Your task to perform on an android device: Go to Android settings Image 0: 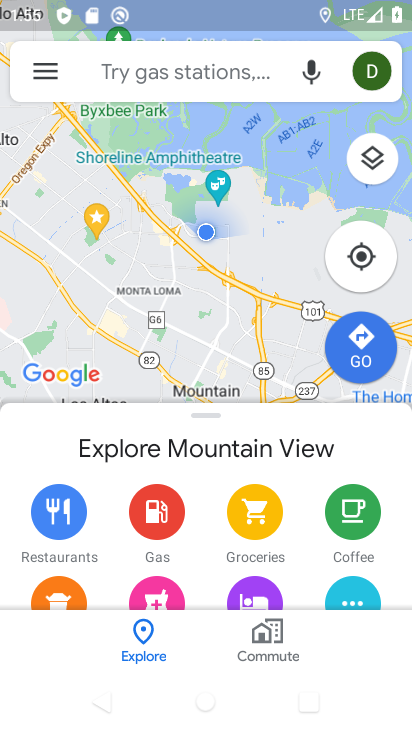
Step 0: press home button
Your task to perform on an android device: Go to Android settings Image 1: 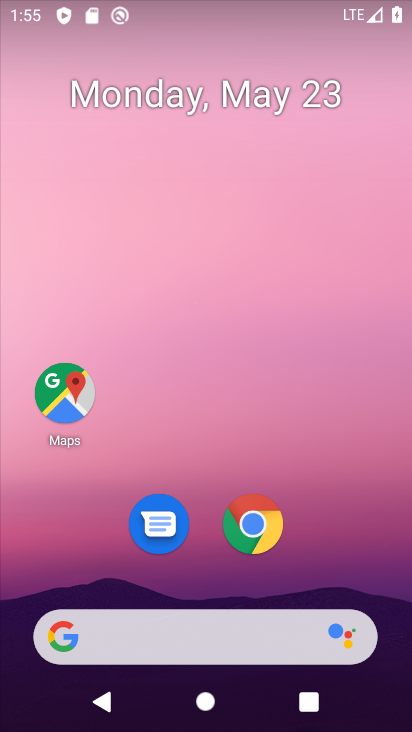
Step 1: drag from (203, 463) to (244, 23)
Your task to perform on an android device: Go to Android settings Image 2: 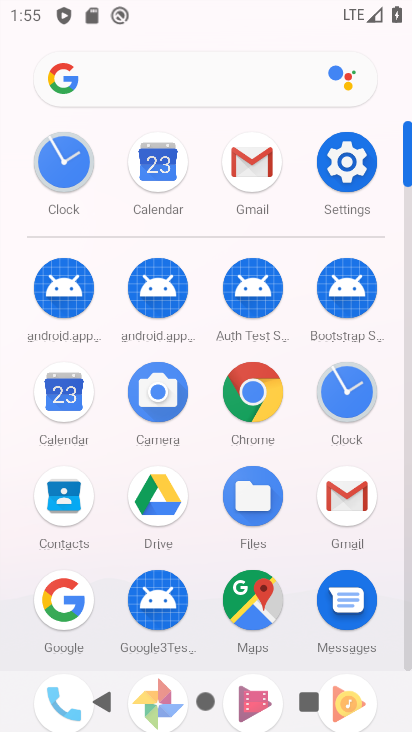
Step 2: click (332, 161)
Your task to perform on an android device: Go to Android settings Image 3: 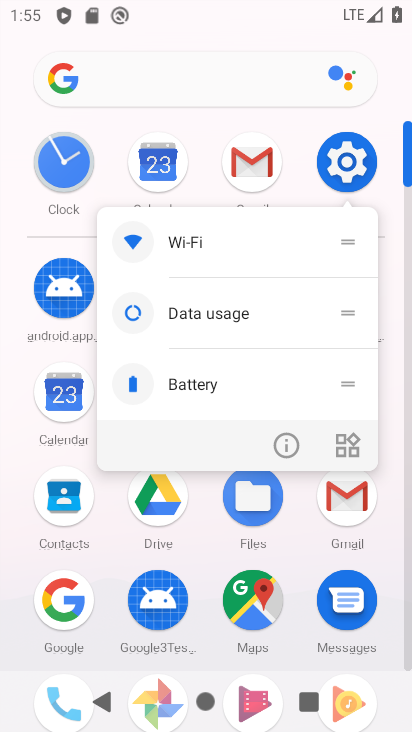
Step 3: click (342, 158)
Your task to perform on an android device: Go to Android settings Image 4: 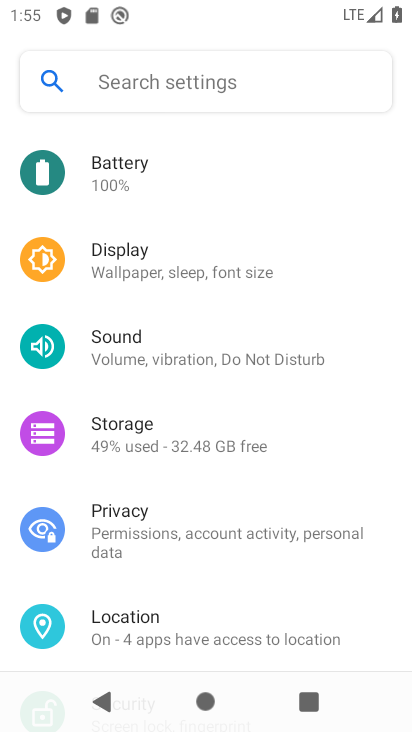
Step 4: drag from (223, 558) to (237, 162)
Your task to perform on an android device: Go to Android settings Image 5: 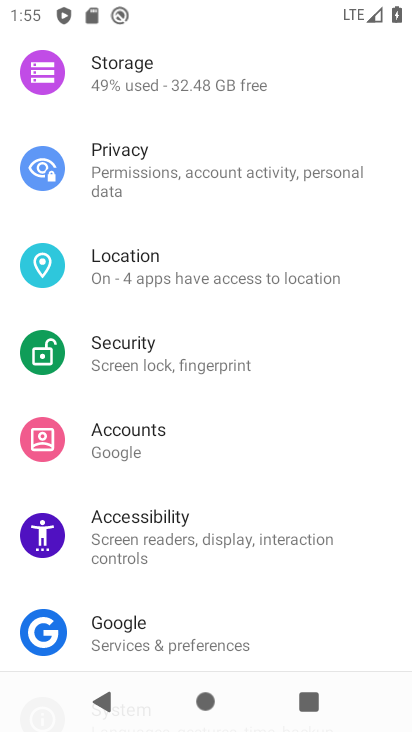
Step 5: drag from (257, 464) to (279, 63)
Your task to perform on an android device: Go to Android settings Image 6: 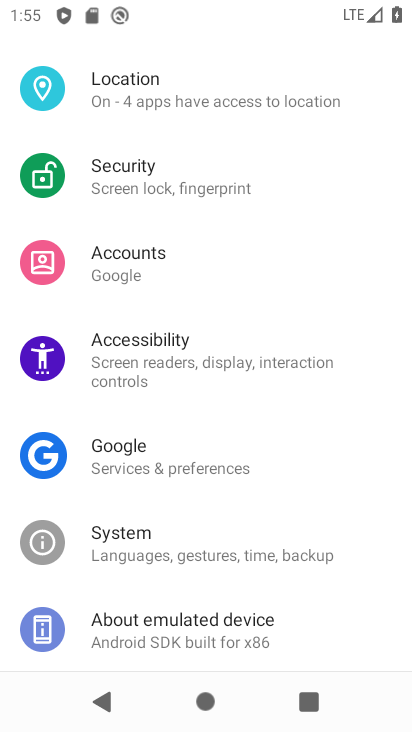
Step 6: click (200, 614)
Your task to perform on an android device: Go to Android settings Image 7: 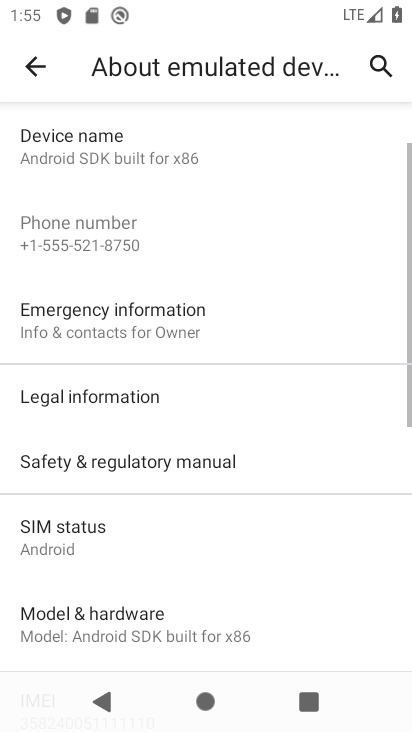
Step 7: task complete